Your task to perform on an android device: toggle javascript in the chrome app Image 0: 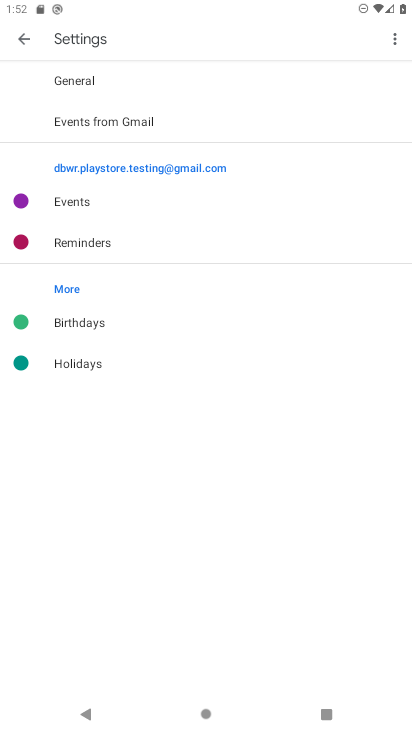
Step 0: press home button
Your task to perform on an android device: toggle javascript in the chrome app Image 1: 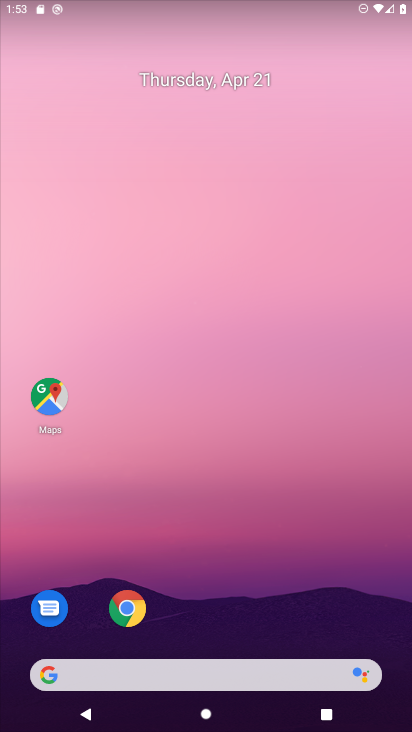
Step 1: drag from (277, 436) to (231, 103)
Your task to perform on an android device: toggle javascript in the chrome app Image 2: 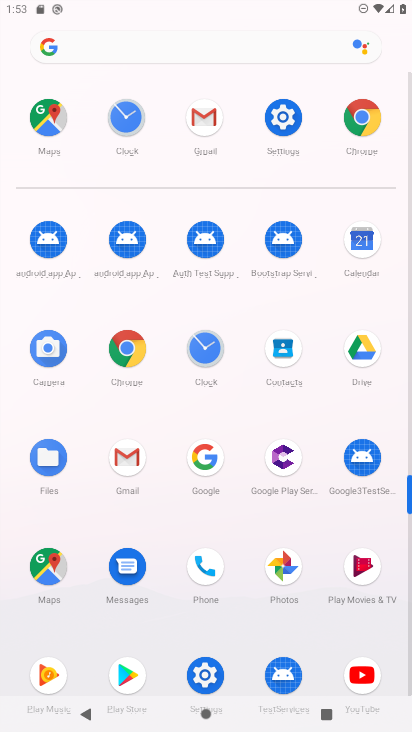
Step 2: click (357, 125)
Your task to perform on an android device: toggle javascript in the chrome app Image 3: 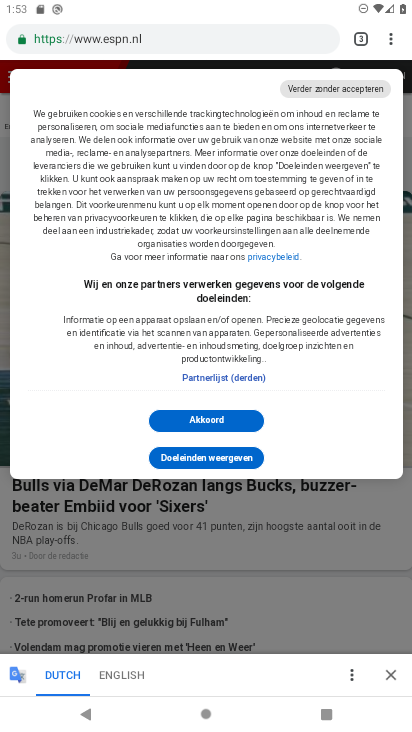
Step 3: drag from (386, 43) to (298, 463)
Your task to perform on an android device: toggle javascript in the chrome app Image 4: 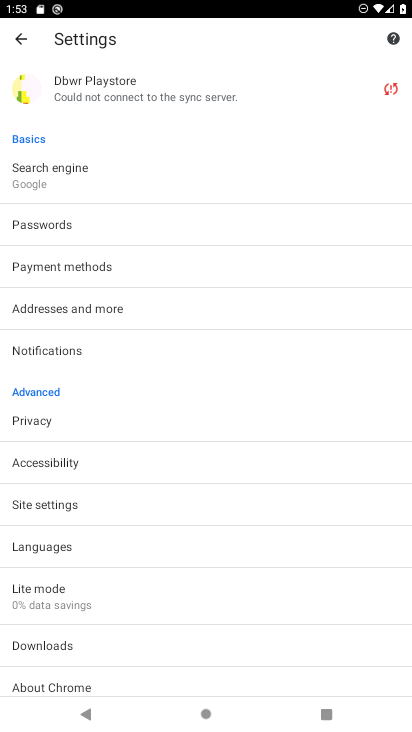
Step 4: drag from (194, 545) to (248, 209)
Your task to perform on an android device: toggle javascript in the chrome app Image 5: 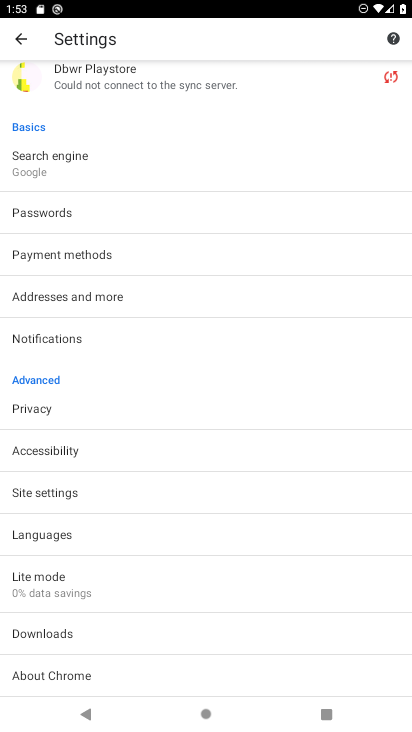
Step 5: click (77, 490)
Your task to perform on an android device: toggle javascript in the chrome app Image 6: 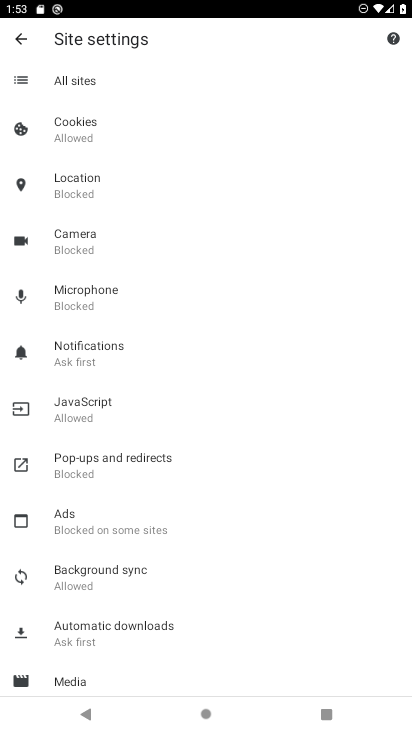
Step 6: click (69, 413)
Your task to perform on an android device: toggle javascript in the chrome app Image 7: 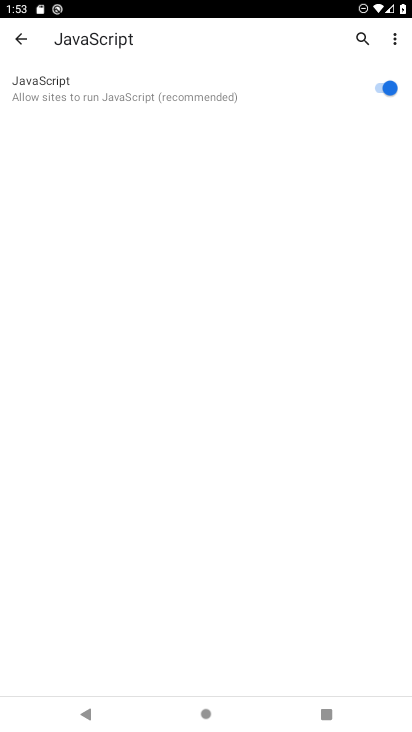
Step 7: click (389, 91)
Your task to perform on an android device: toggle javascript in the chrome app Image 8: 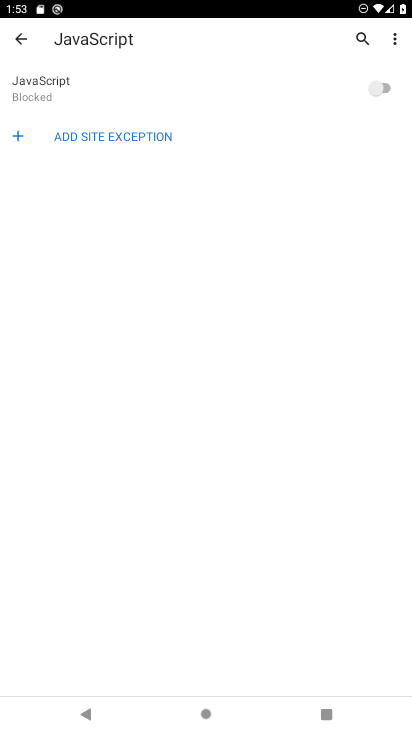
Step 8: task complete